Your task to perform on an android device: Open the stopwatch Image 0: 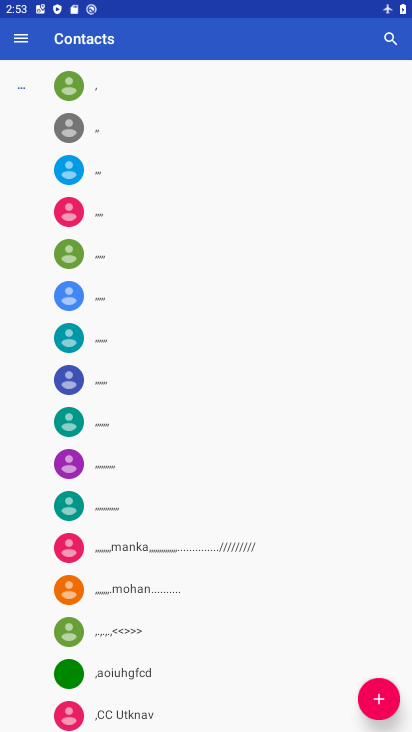
Step 0: press home button
Your task to perform on an android device: Open the stopwatch Image 1: 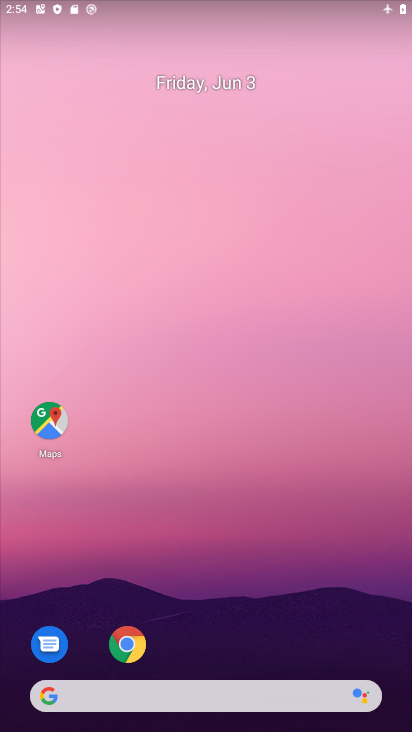
Step 1: drag from (224, 662) to (242, 299)
Your task to perform on an android device: Open the stopwatch Image 2: 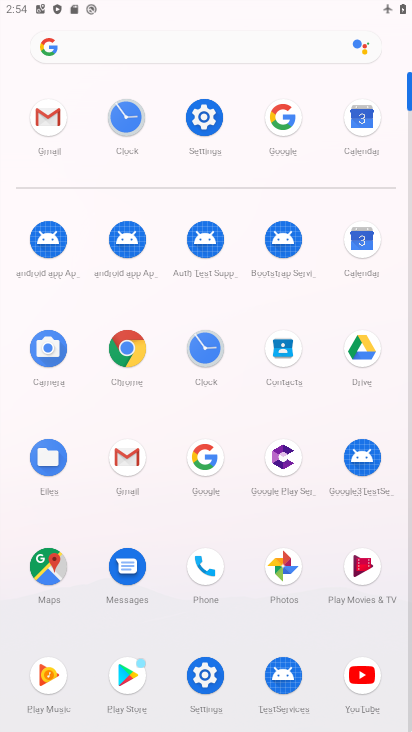
Step 2: click (114, 132)
Your task to perform on an android device: Open the stopwatch Image 3: 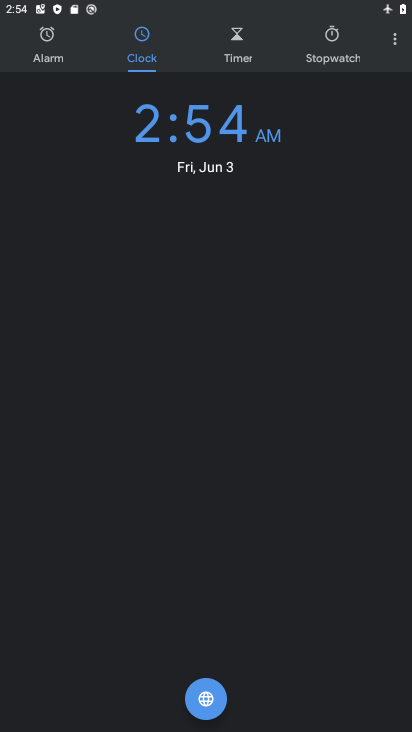
Step 3: click (348, 40)
Your task to perform on an android device: Open the stopwatch Image 4: 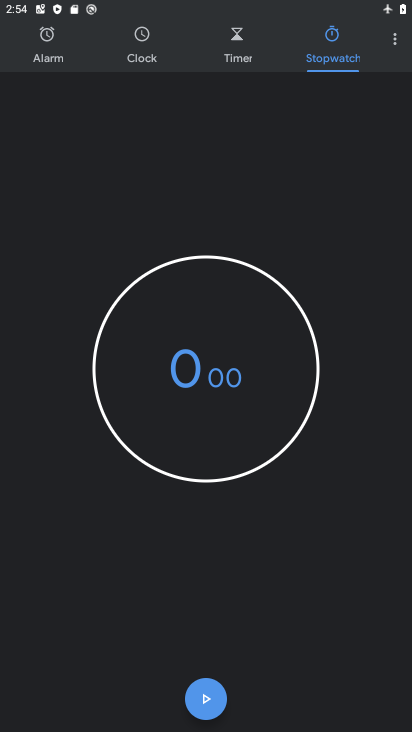
Step 4: task complete